Your task to perform on an android device: toggle airplane mode Image 0: 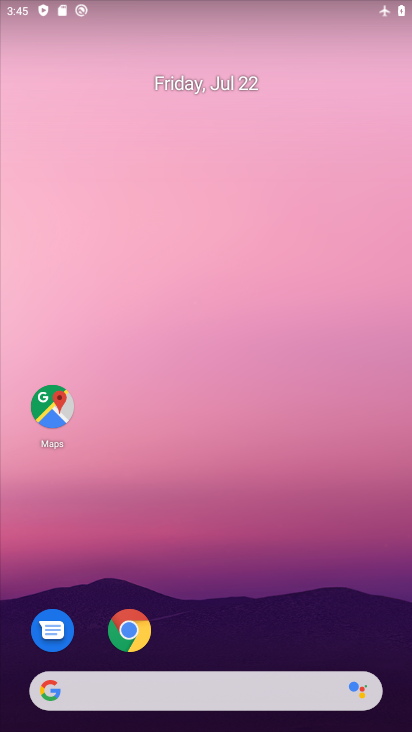
Step 0: drag from (222, 650) to (196, 51)
Your task to perform on an android device: toggle airplane mode Image 1: 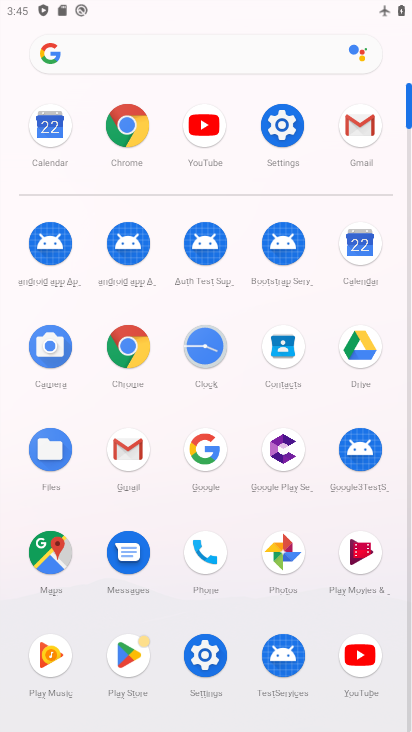
Step 1: click (279, 153)
Your task to perform on an android device: toggle airplane mode Image 2: 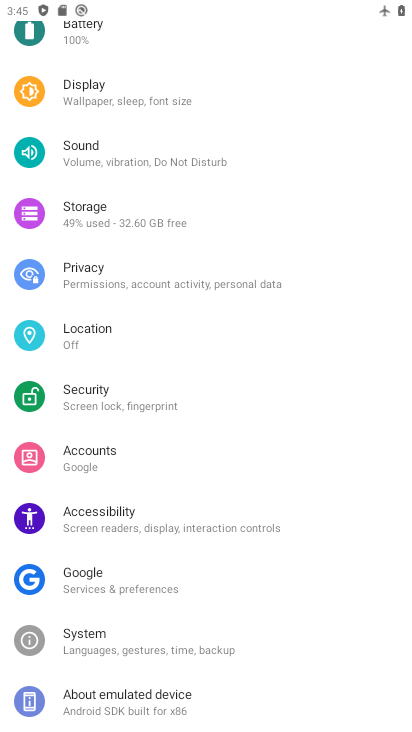
Step 2: drag from (133, 146) to (107, 516)
Your task to perform on an android device: toggle airplane mode Image 3: 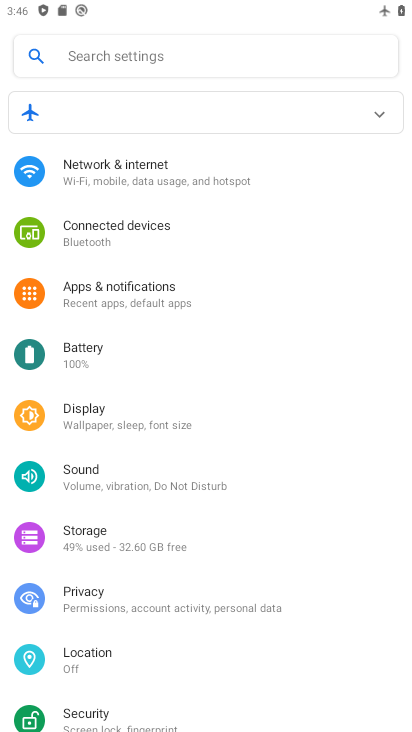
Step 3: click (136, 164)
Your task to perform on an android device: toggle airplane mode Image 4: 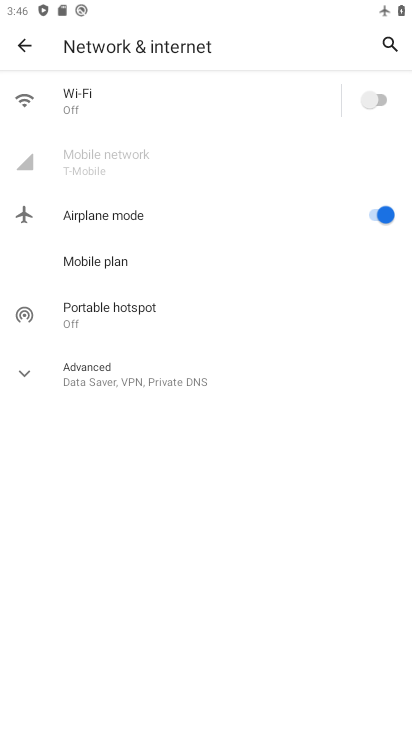
Step 4: click (369, 204)
Your task to perform on an android device: toggle airplane mode Image 5: 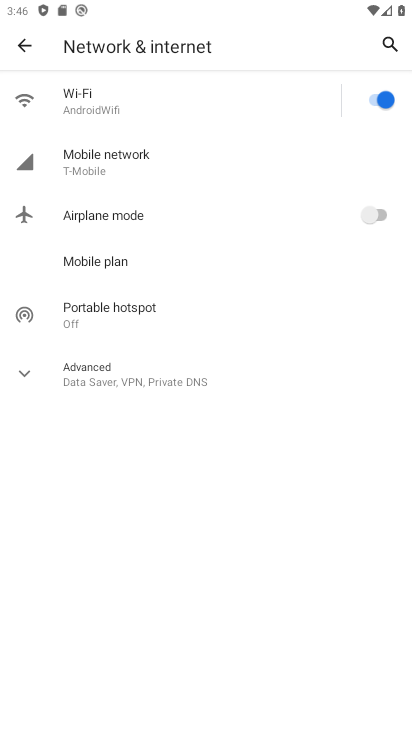
Step 5: task complete